Your task to perform on an android device: Open Android settings Image 0: 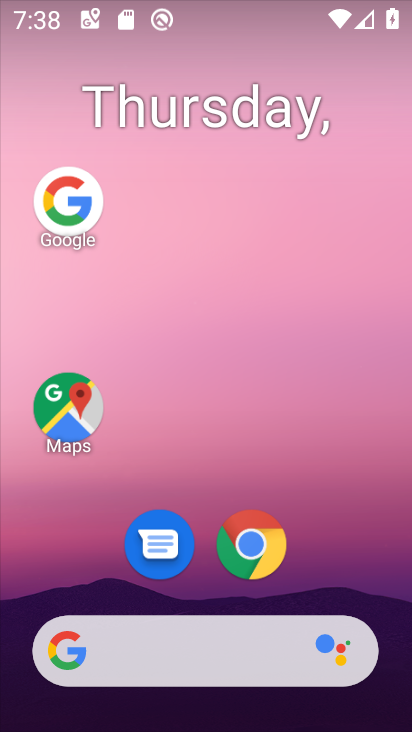
Step 0: drag from (263, 690) to (227, 60)
Your task to perform on an android device: Open Android settings Image 1: 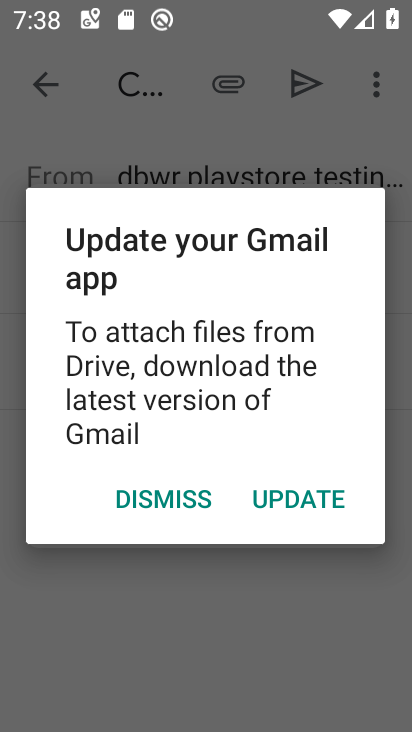
Step 1: click (179, 495)
Your task to perform on an android device: Open Android settings Image 2: 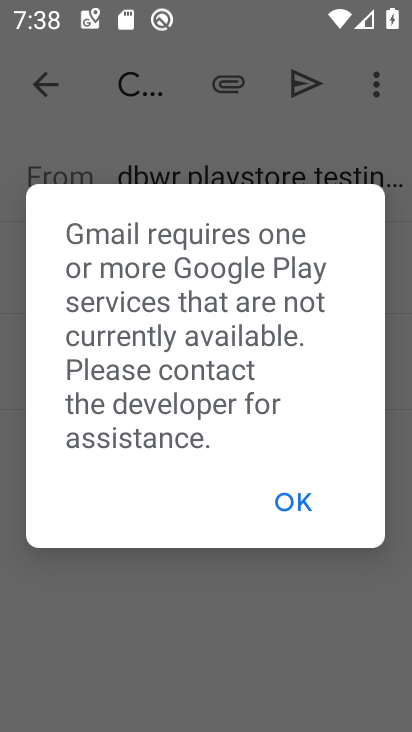
Step 2: press home button
Your task to perform on an android device: Open Android settings Image 3: 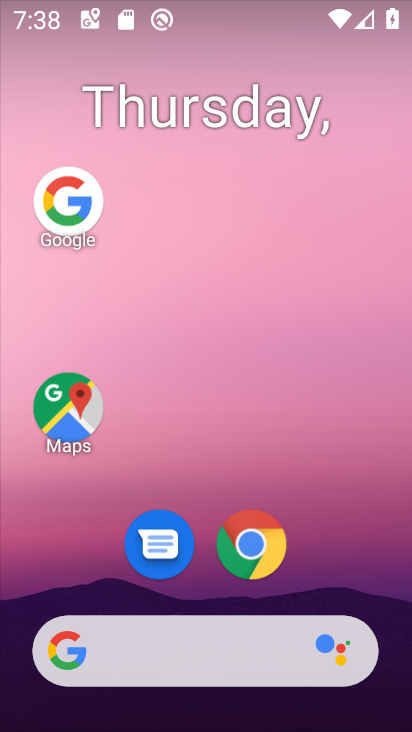
Step 3: drag from (250, 699) to (254, 124)
Your task to perform on an android device: Open Android settings Image 4: 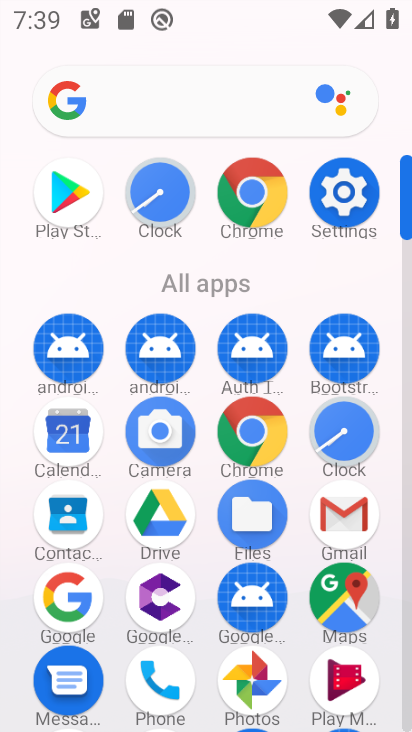
Step 4: click (343, 187)
Your task to perform on an android device: Open Android settings Image 5: 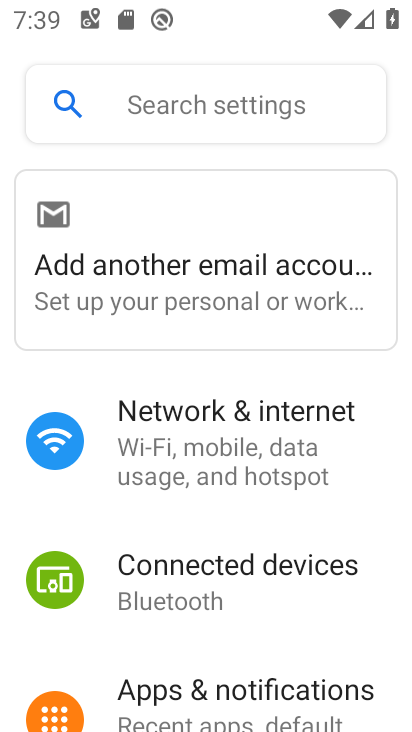
Step 5: click (198, 103)
Your task to perform on an android device: Open Android settings Image 6: 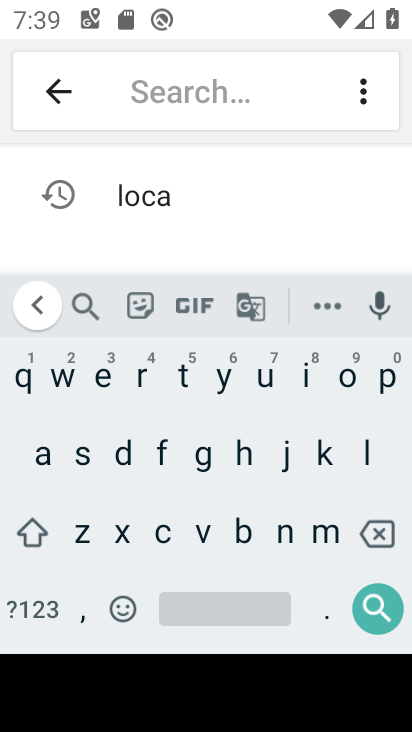
Step 6: click (45, 455)
Your task to perform on an android device: Open Android settings Image 7: 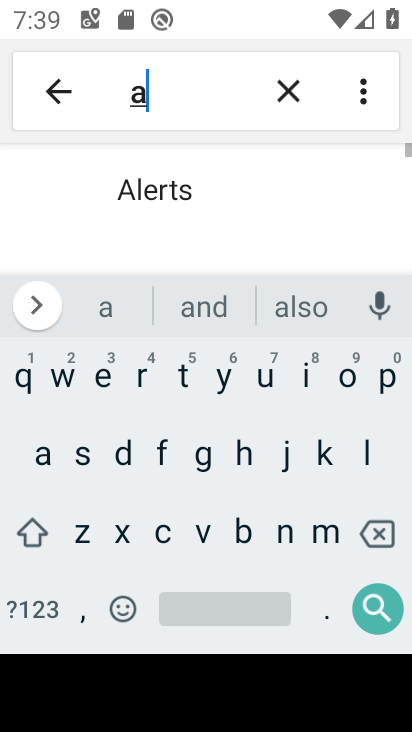
Step 7: click (280, 530)
Your task to perform on an android device: Open Android settings Image 8: 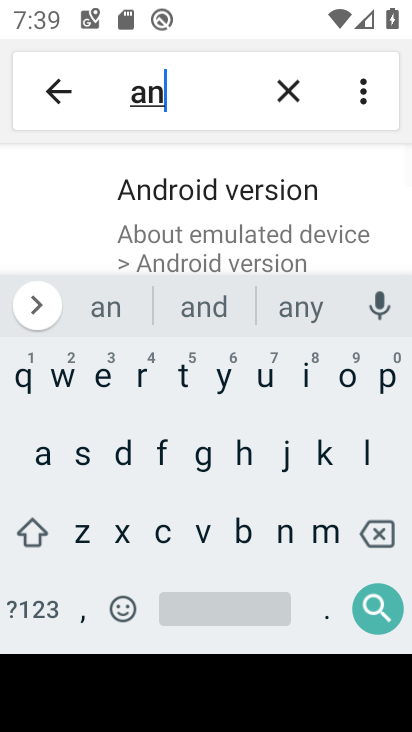
Step 8: click (123, 456)
Your task to perform on an android device: Open Android settings Image 9: 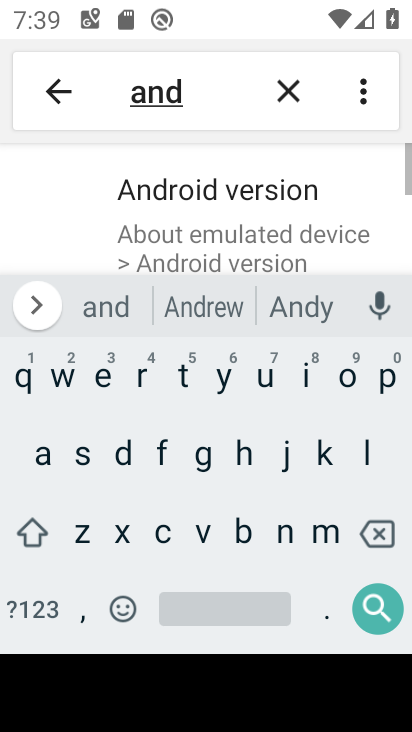
Step 9: click (231, 207)
Your task to perform on an android device: Open Android settings Image 10: 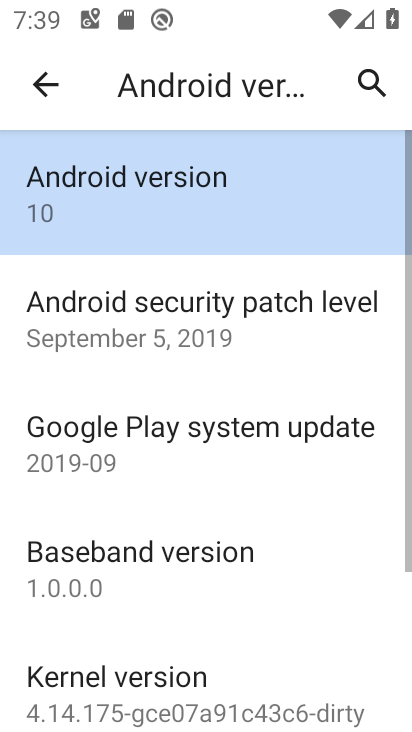
Step 10: click (186, 199)
Your task to perform on an android device: Open Android settings Image 11: 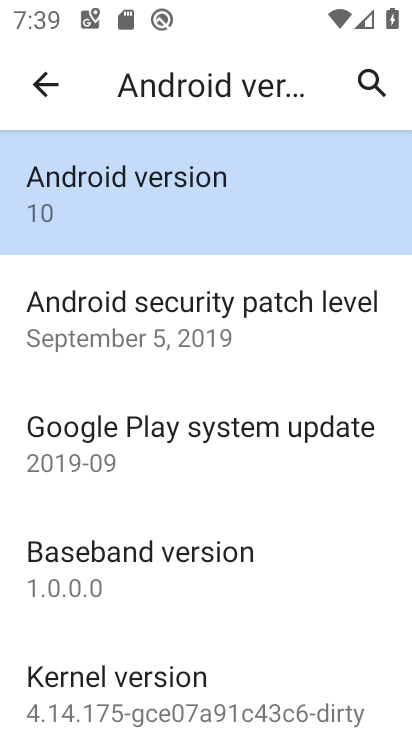
Step 11: task complete